Your task to perform on an android device: Open settings on Google Maps Image 0: 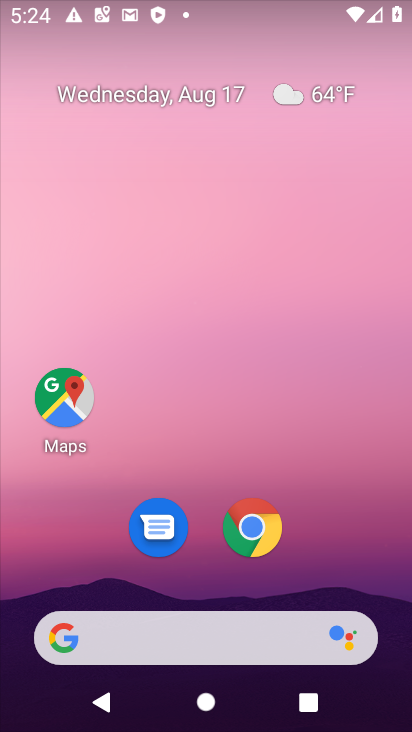
Step 0: click (44, 398)
Your task to perform on an android device: Open settings on Google Maps Image 1: 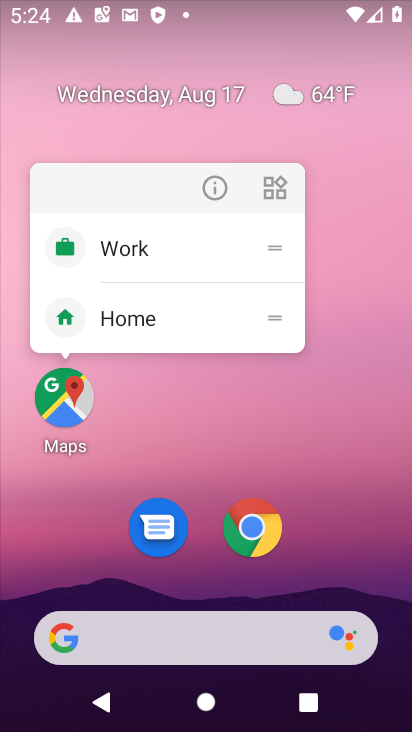
Step 1: click (48, 412)
Your task to perform on an android device: Open settings on Google Maps Image 2: 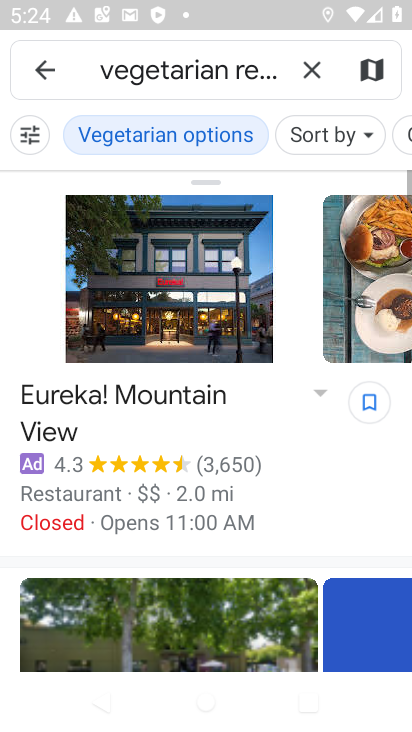
Step 2: click (310, 83)
Your task to perform on an android device: Open settings on Google Maps Image 3: 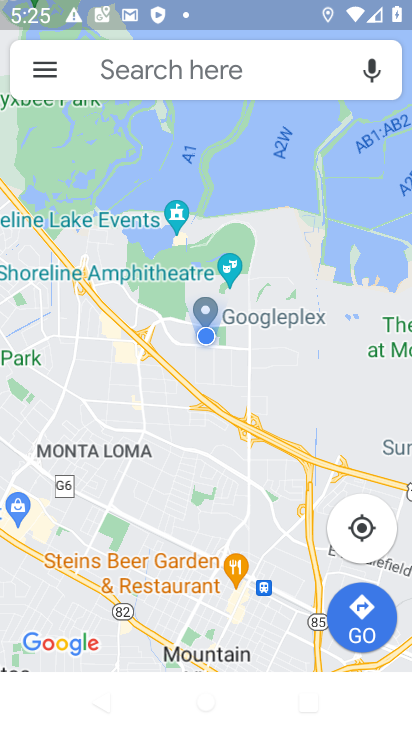
Step 3: click (43, 71)
Your task to perform on an android device: Open settings on Google Maps Image 4: 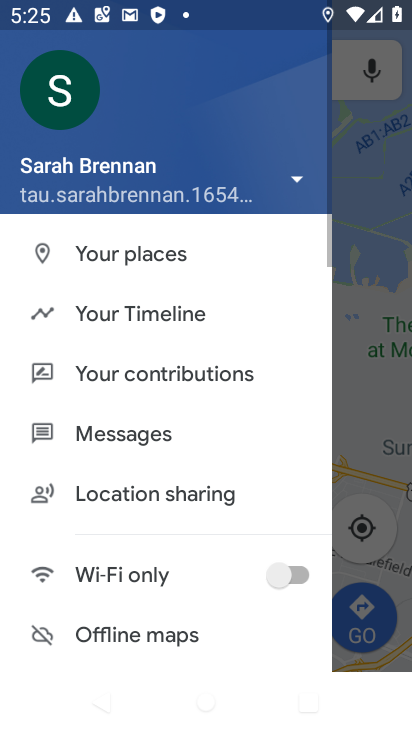
Step 4: drag from (113, 587) to (107, 262)
Your task to perform on an android device: Open settings on Google Maps Image 5: 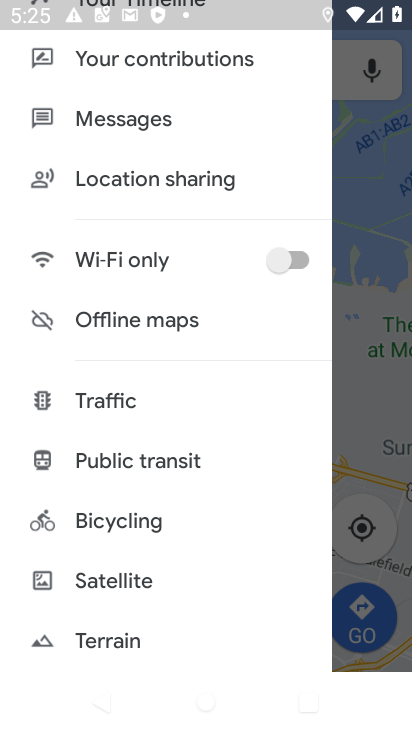
Step 5: drag from (92, 619) to (92, 273)
Your task to perform on an android device: Open settings on Google Maps Image 6: 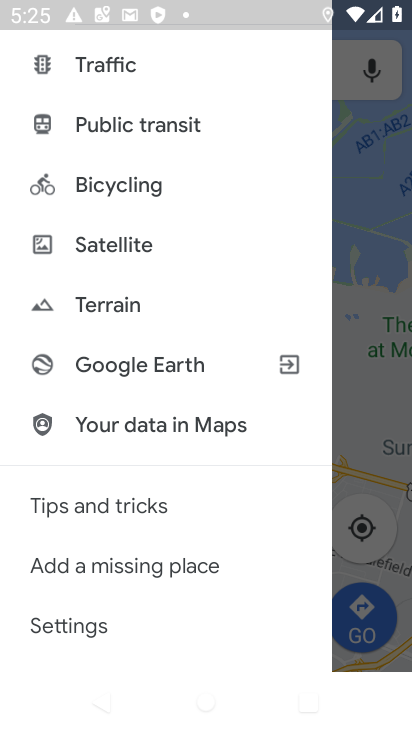
Step 6: click (81, 617)
Your task to perform on an android device: Open settings on Google Maps Image 7: 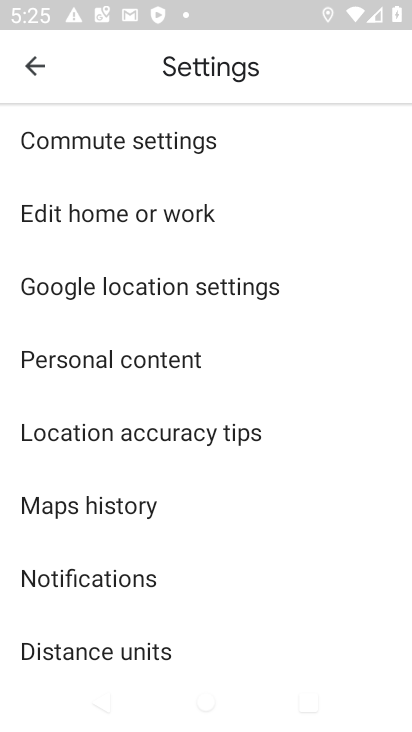
Step 7: task complete